Your task to perform on an android device: What's on my calendar tomorrow? Image 0: 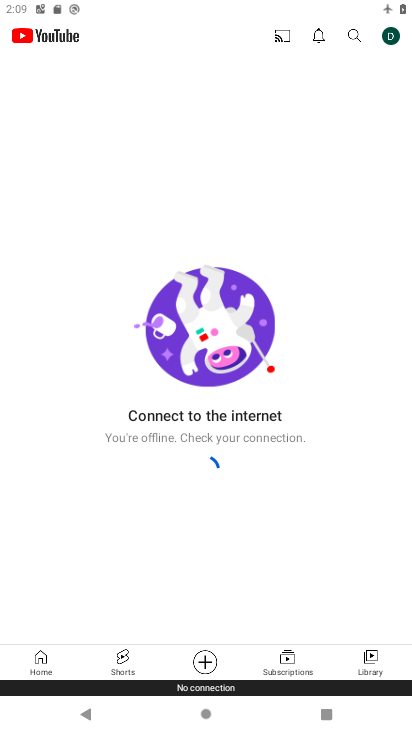
Step 0: press home button
Your task to perform on an android device: What's on my calendar tomorrow? Image 1: 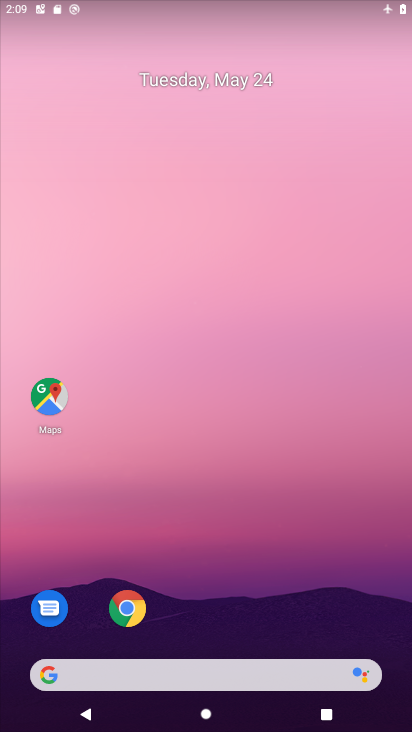
Step 1: drag from (292, 562) to (266, 175)
Your task to perform on an android device: What's on my calendar tomorrow? Image 2: 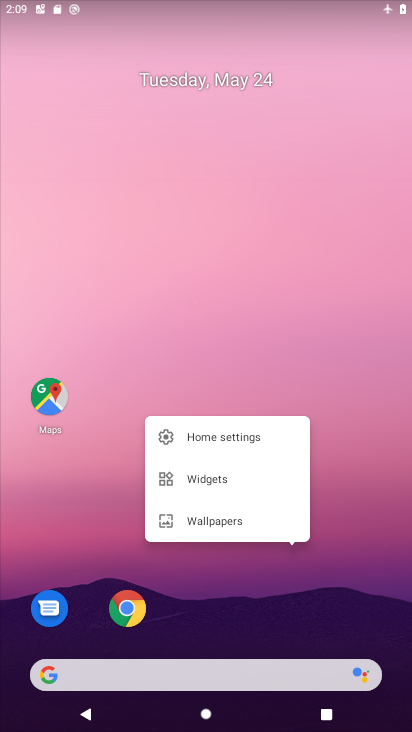
Step 2: click (266, 175)
Your task to perform on an android device: What's on my calendar tomorrow? Image 3: 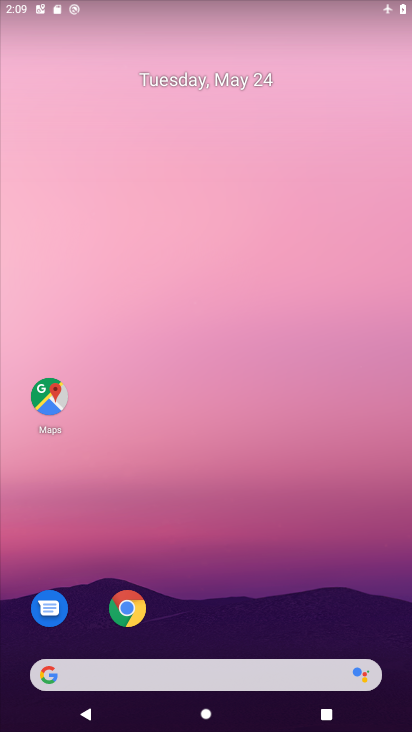
Step 3: drag from (315, 606) to (284, 290)
Your task to perform on an android device: What's on my calendar tomorrow? Image 4: 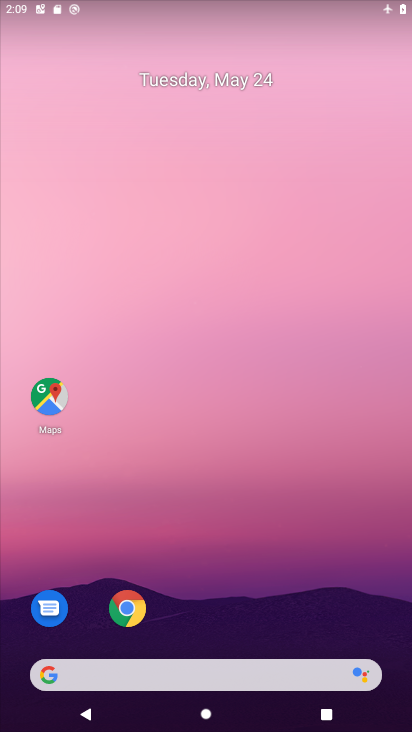
Step 4: drag from (273, 563) to (244, 138)
Your task to perform on an android device: What's on my calendar tomorrow? Image 5: 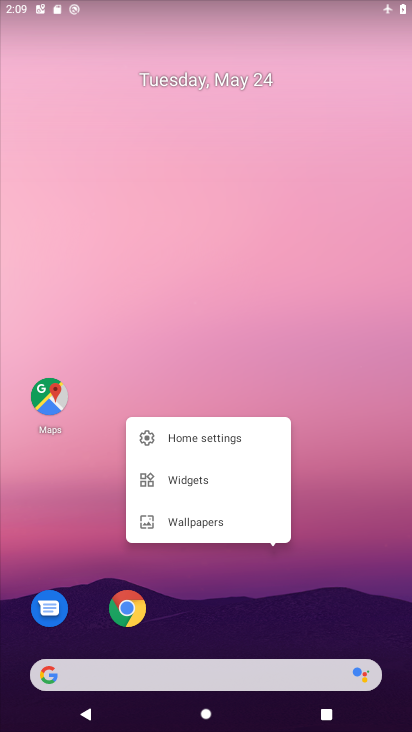
Step 5: click (244, 267)
Your task to perform on an android device: What's on my calendar tomorrow? Image 6: 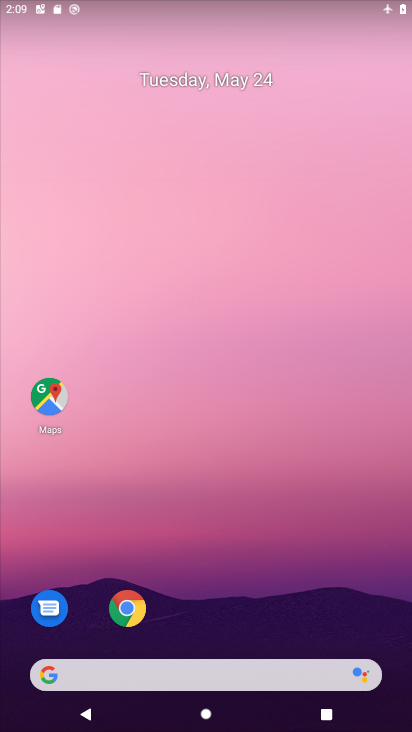
Step 6: drag from (241, 587) to (231, 217)
Your task to perform on an android device: What's on my calendar tomorrow? Image 7: 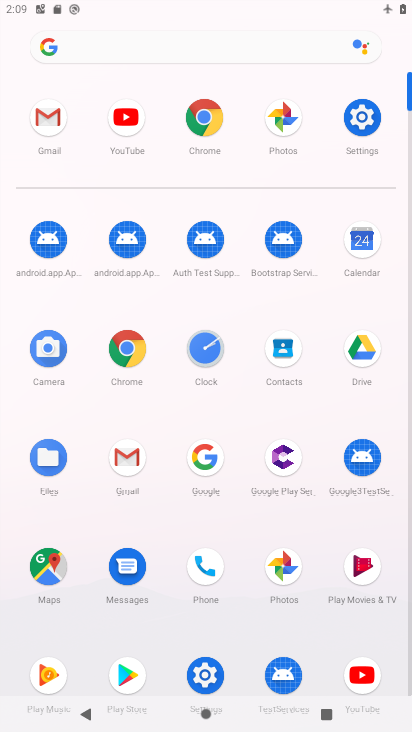
Step 7: click (337, 263)
Your task to perform on an android device: What's on my calendar tomorrow? Image 8: 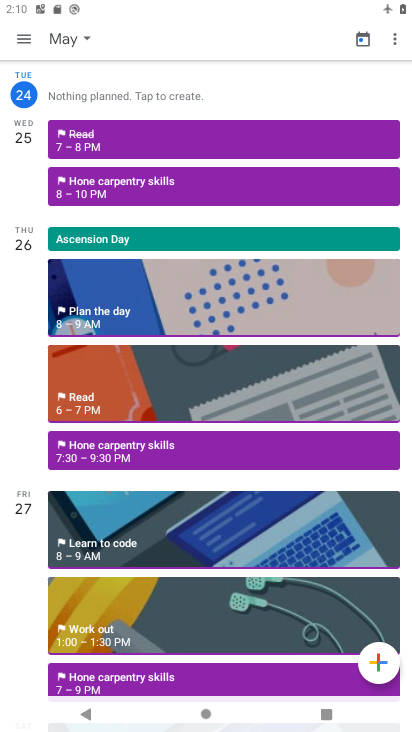
Step 8: task complete